Your task to perform on an android device: choose inbox layout in the gmail app Image 0: 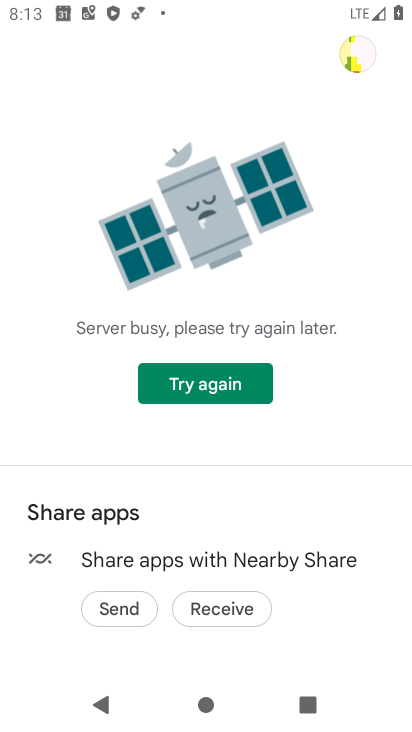
Step 0: press home button
Your task to perform on an android device: choose inbox layout in the gmail app Image 1: 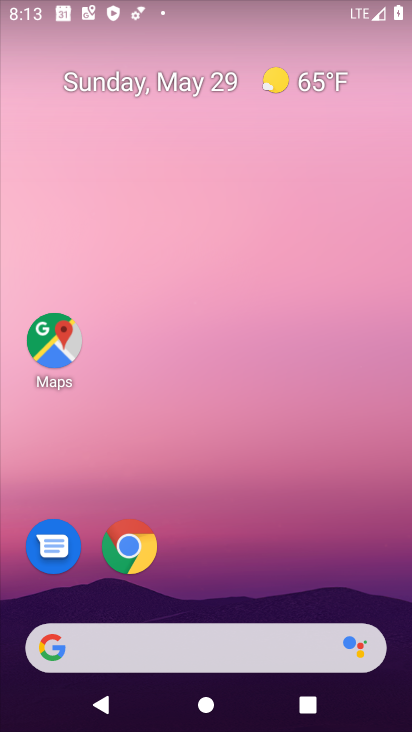
Step 1: click (133, 558)
Your task to perform on an android device: choose inbox layout in the gmail app Image 2: 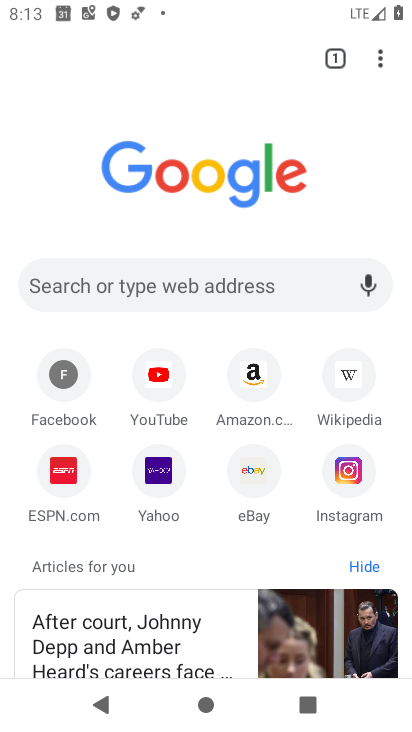
Step 2: press home button
Your task to perform on an android device: choose inbox layout in the gmail app Image 3: 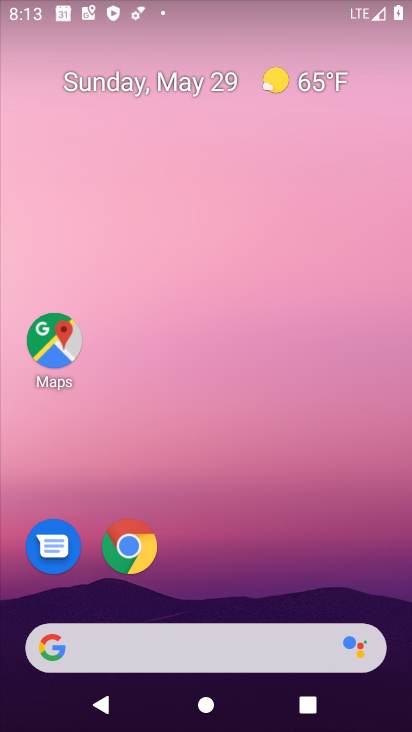
Step 3: drag from (218, 550) to (203, 139)
Your task to perform on an android device: choose inbox layout in the gmail app Image 4: 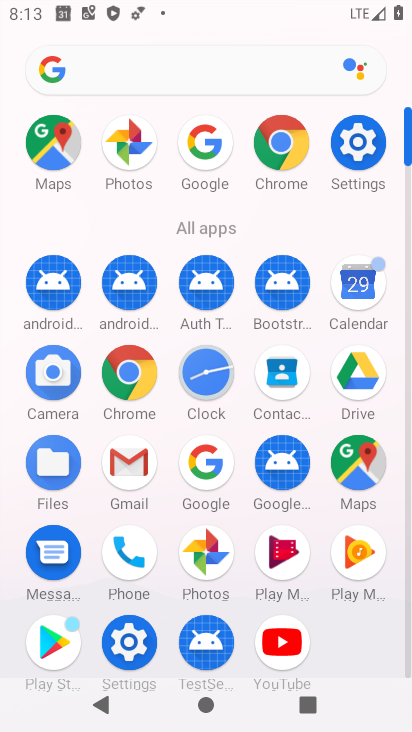
Step 4: click (142, 466)
Your task to perform on an android device: choose inbox layout in the gmail app Image 5: 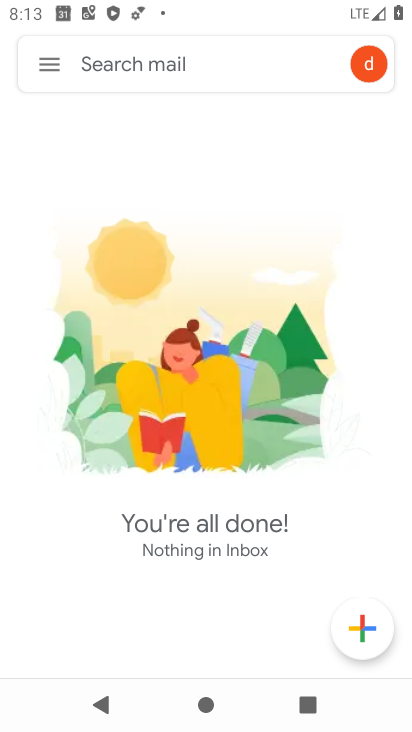
Step 5: click (47, 68)
Your task to perform on an android device: choose inbox layout in the gmail app Image 6: 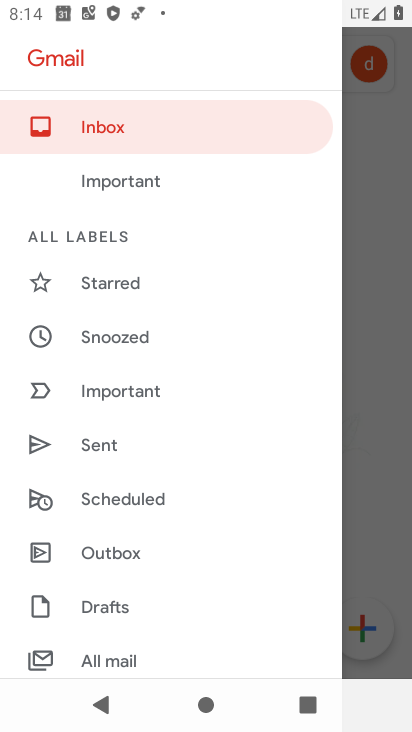
Step 6: drag from (122, 655) to (167, 239)
Your task to perform on an android device: choose inbox layout in the gmail app Image 7: 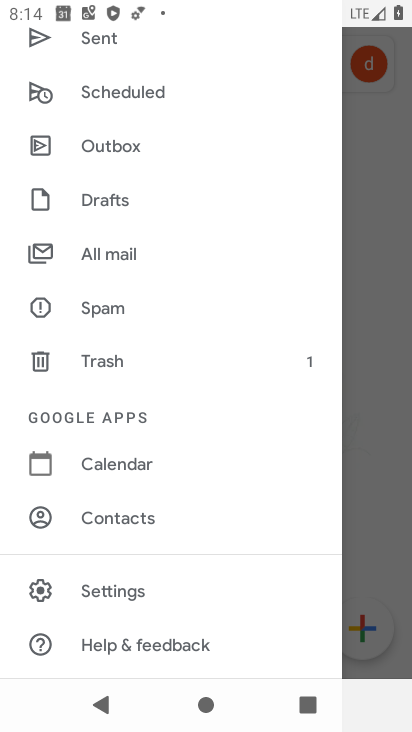
Step 7: click (119, 594)
Your task to perform on an android device: choose inbox layout in the gmail app Image 8: 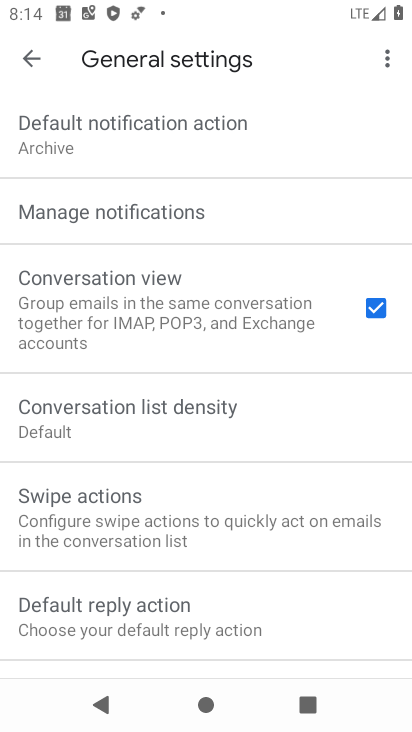
Step 8: drag from (111, 629) to (165, 249)
Your task to perform on an android device: choose inbox layout in the gmail app Image 9: 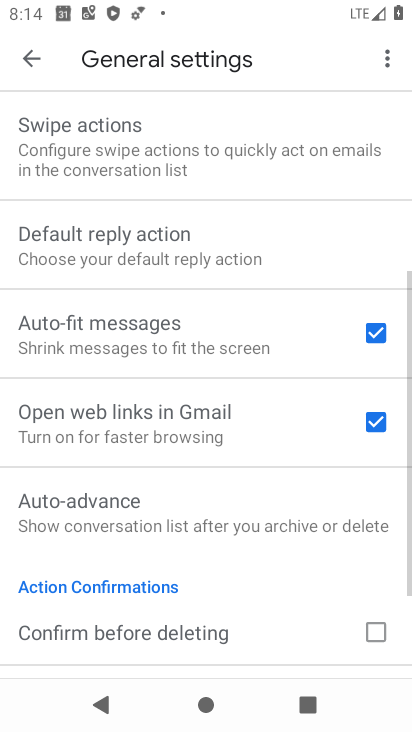
Step 9: drag from (151, 616) to (212, 180)
Your task to perform on an android device: choose inbox layout in the gmail app Image 10: 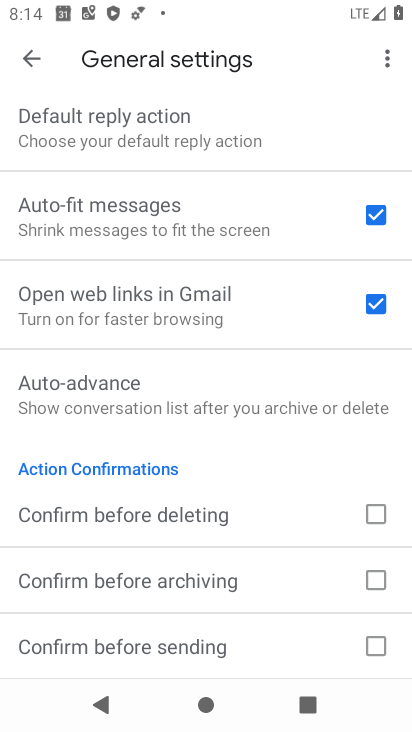
Step 10: click (40, 53)
Your task to perform on an android device: choose inbox layout in the gmail app Image 11: 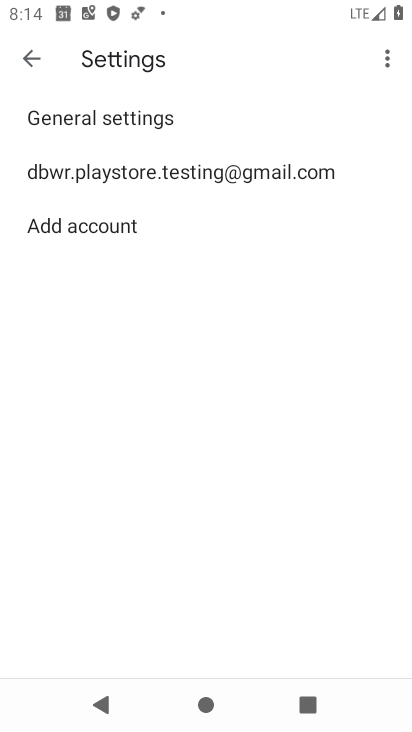
Step 11: click (97, 176)
Your task to perform on an android device: choose inbox layout in the gmail app Image 12: 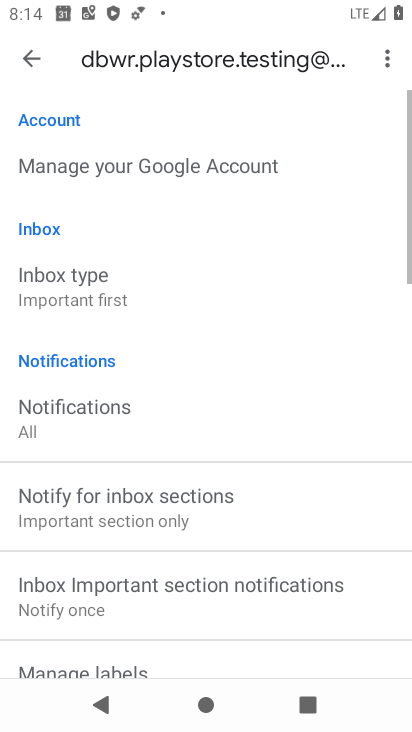
Step 12: click (96, 296)
Your task to perform on an android device: choose inbox layout in the gmail app Image 13: 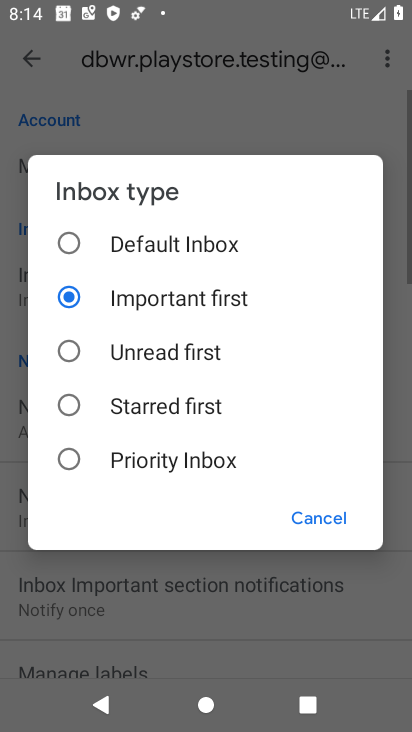
Step 13: click (145, 408)
Your task to perform on an android device: choose inbox layout in the gmail app Image 14: 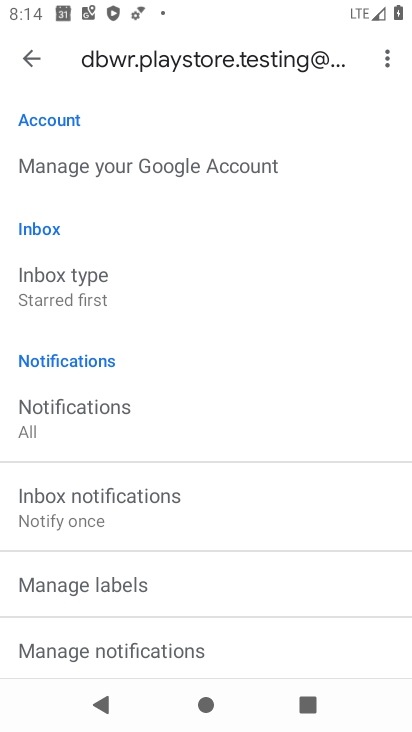
Step 14: task complete